Your task to perform on an android device: add a contact Image 0: 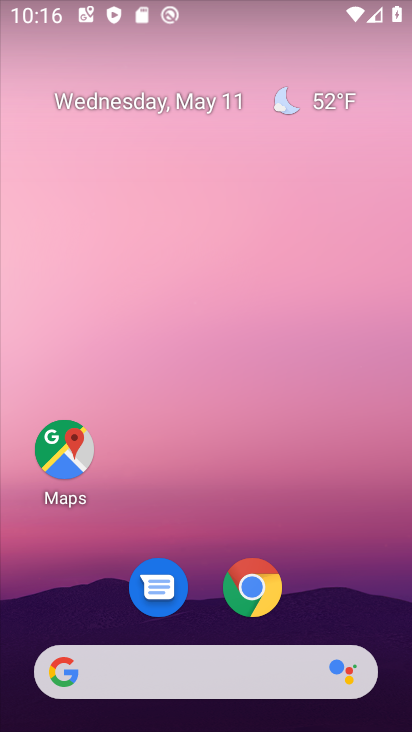
Step 0: drag from (258, 642) to (248, 254)
Your task to perform on an android device: add a contact Image 1: 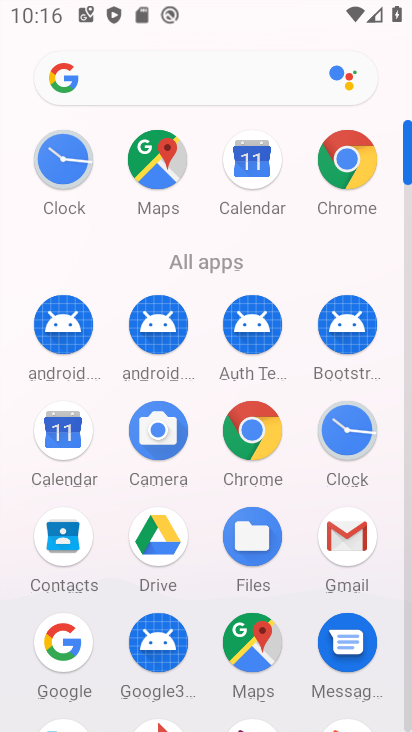
Step 1: click (59, 552)
Your task to perform on an android device: add a contact Image 2: 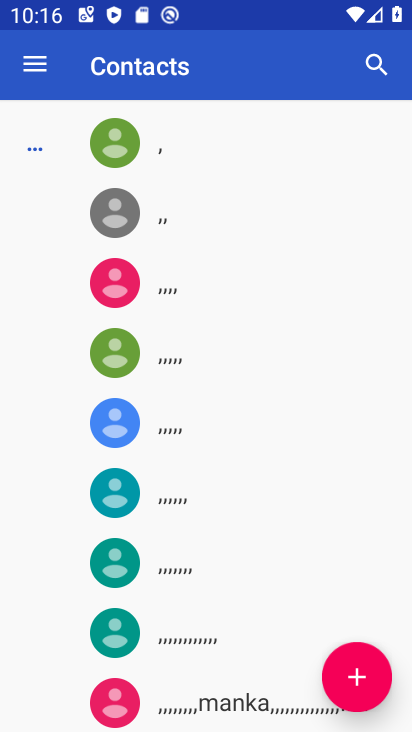
Step 2: click (351, 676)
Your task to perform on an android device: add a contact Image 3: 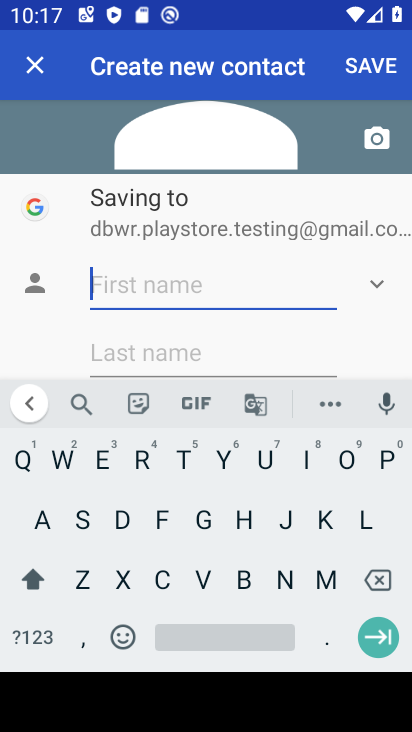
Step 3: click (224, 577)
Your task to perform on an android device: add a contact Image 4: 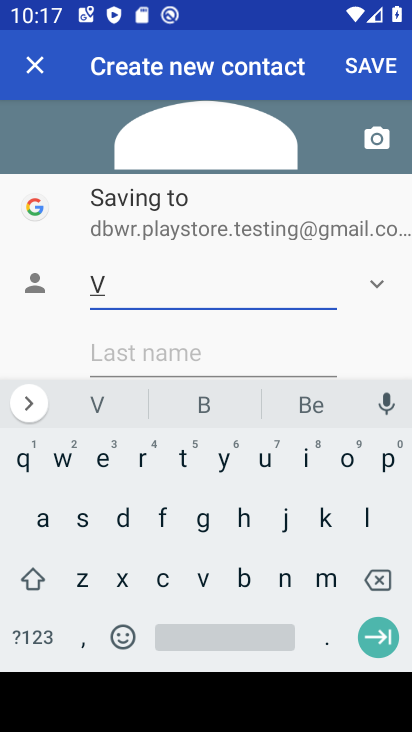
Step 4: click (287, 513)
Your task to perform on an android device: add a contact Image 5: 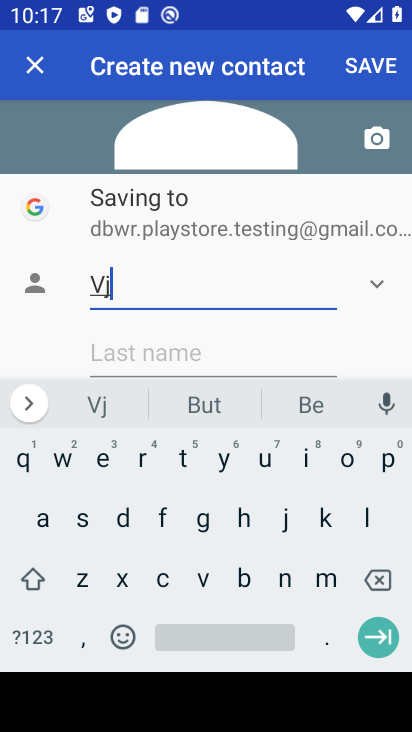
Step 5: click (331, 516)
Your task to perform on an android device: add a contact Image 6: 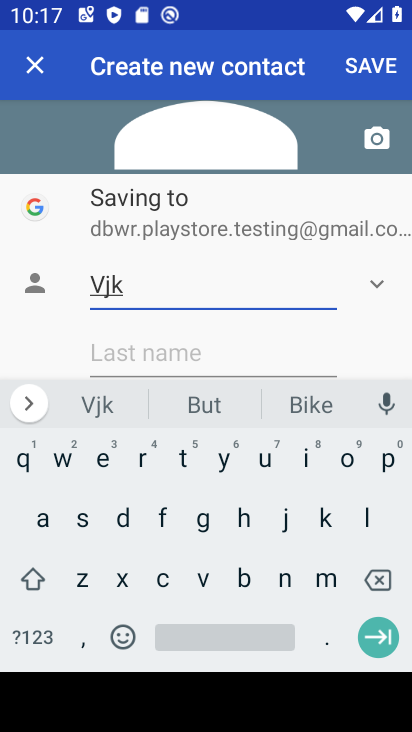
Step 6: drag from (170, 354) to (205, 261)
Your task to perform on an android device: add a contact Image 7: 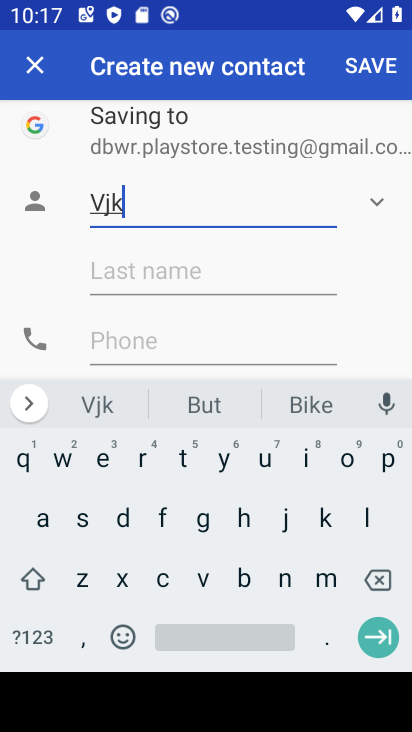
Step 7: click (143, 334)
Your task to perform on an android device: add a contact Image 8: 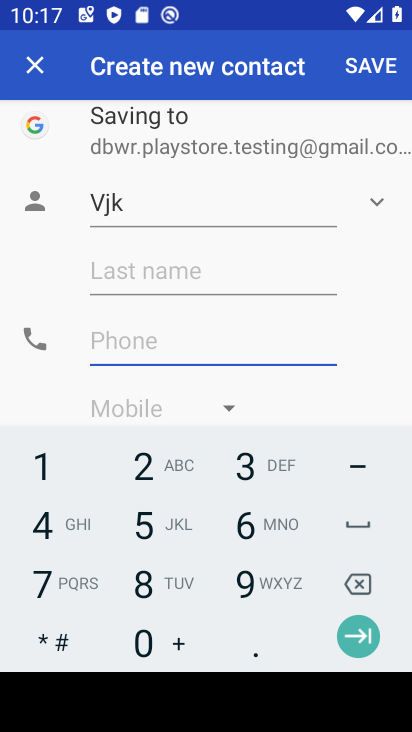
Step 8: click (155, 550)
Your task to perform on an android device: add a contact Image 9: 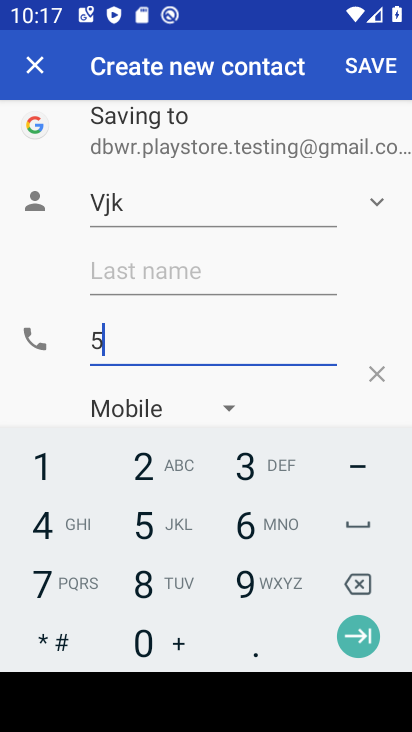
Step 9: click (135, 579)
Your task to perform on an android device: add a contact Image 10: 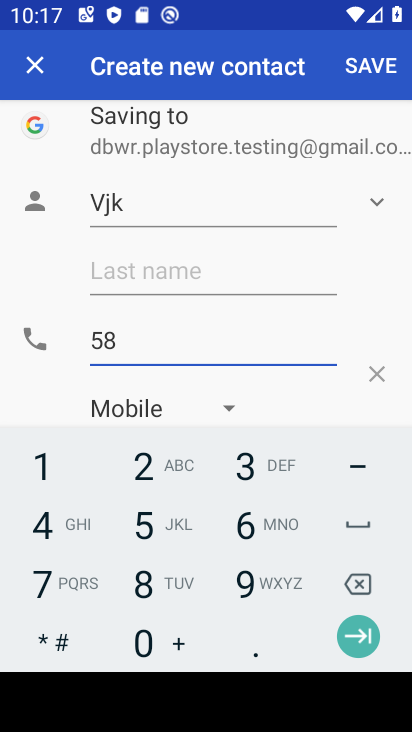
Step 10: click (79, 580)
Your task to perform on an android device: add a contact Image 11: 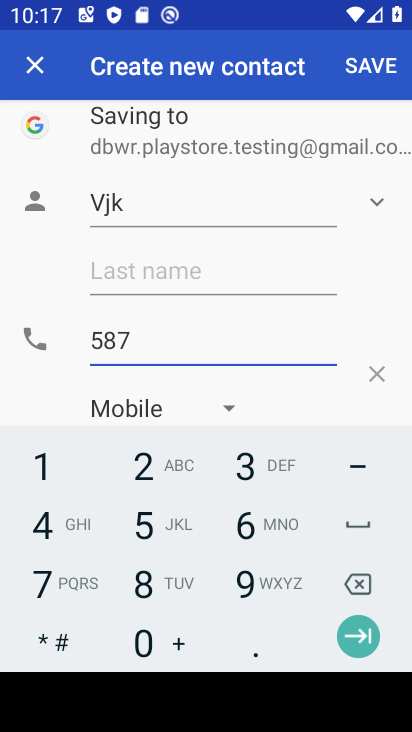
Step 11: click (289, 535)
Your task to perform on an android device: add a contact Image 12: 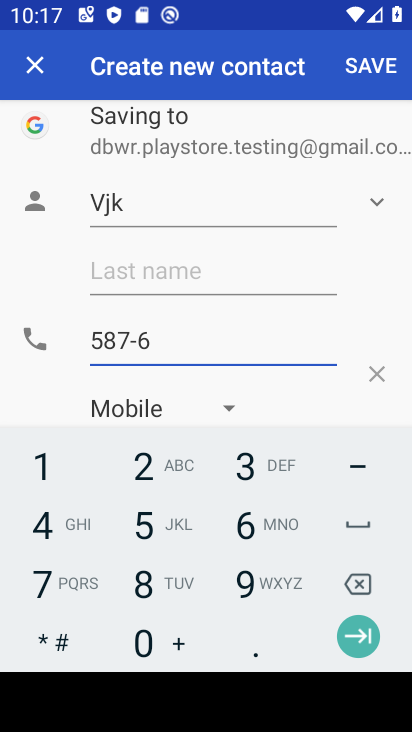
Step 12: click (223, 537)
Your task to perform on an android device: add a contact Image 13: 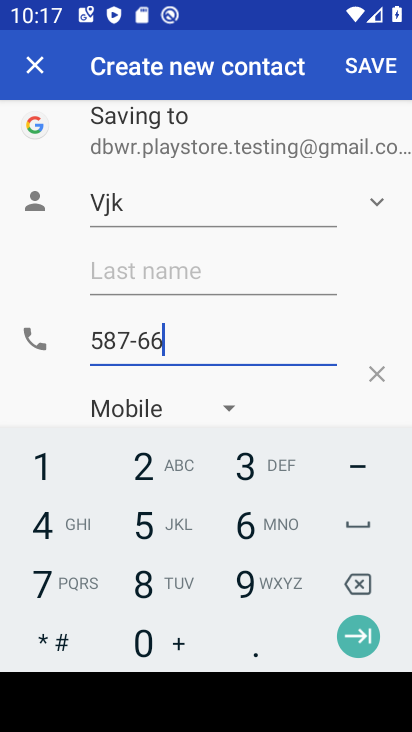
Step 13: click (70, 512)
Your task to perform on an android device: add a contact Image 14: 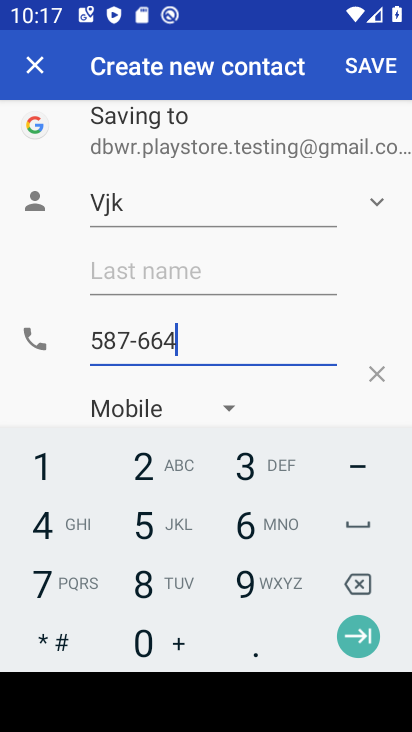
Step 14: click (380, 62)
Your task to perform on an android device: add a contact Image 15: 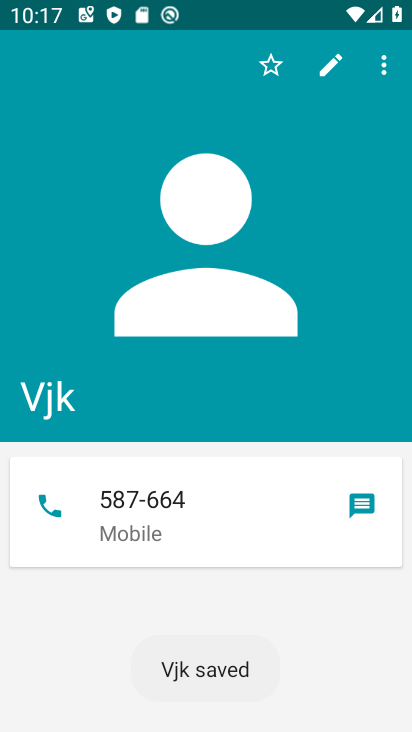
Step 15: task complete